Your task to perform on an android device: Go to eBay Image 0: 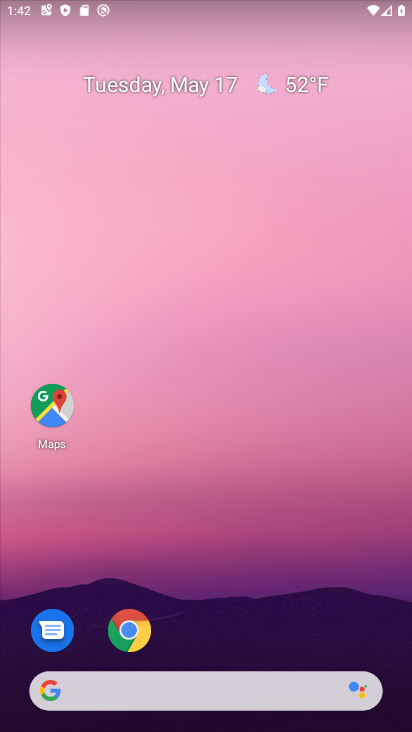
Step 0: click (131, 633)
Your task to perform on an android device: Go to eBay Image 1: 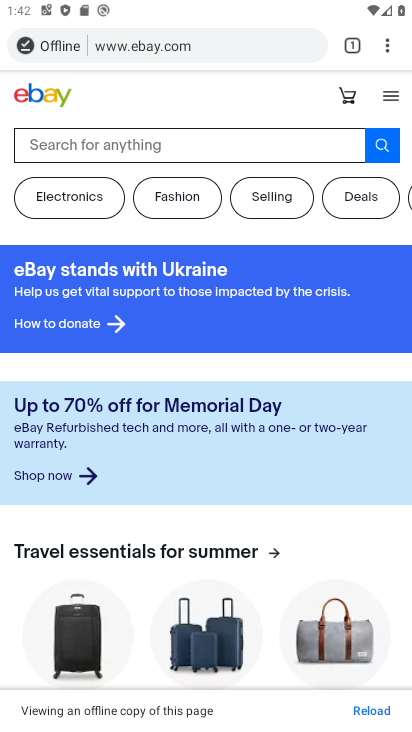
Step 1: task complete